Your task to perform on an android device: check out phone information Image 0: 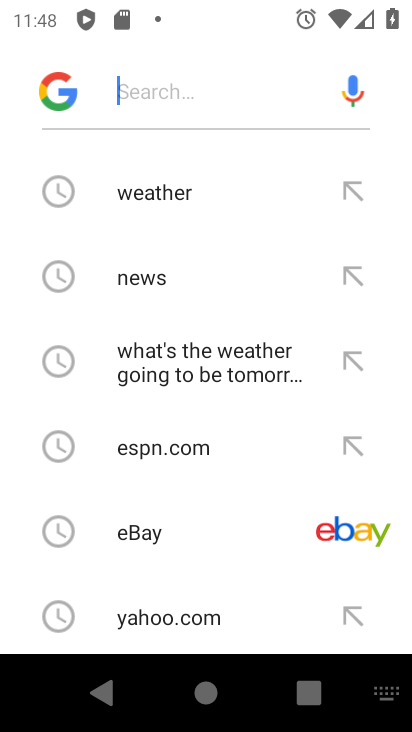
Step 0: press home button
Your task to perform on an android device: check out phone information Image 1: 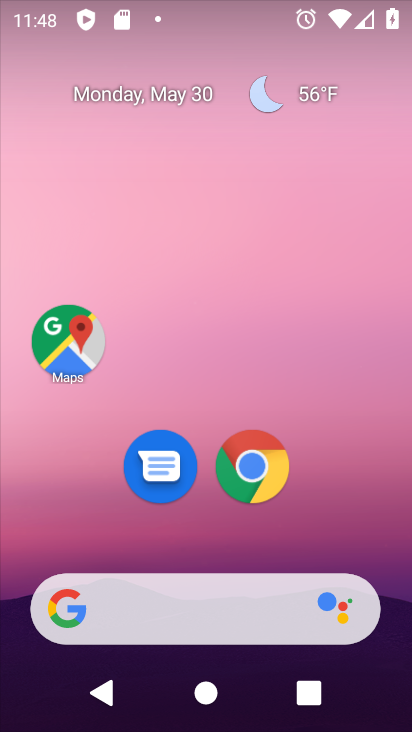
Step 1: drag from (221, 585) to (183, 217)
Your task to perform on an android device: check out phone information Image 2: 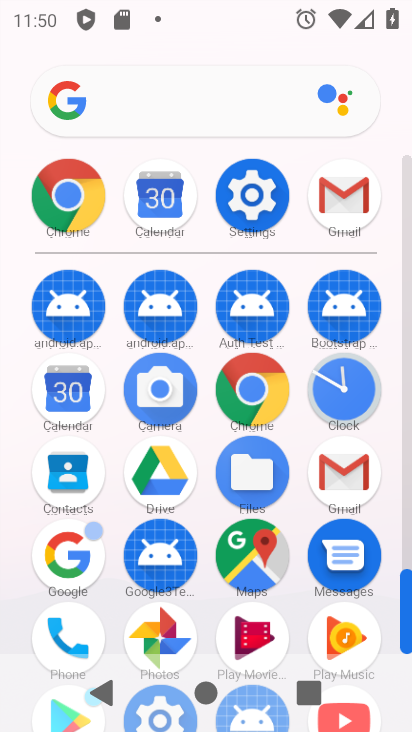
Step 2: click (258, 207)
Your task to perform on an android device: check out phone information Image 3: 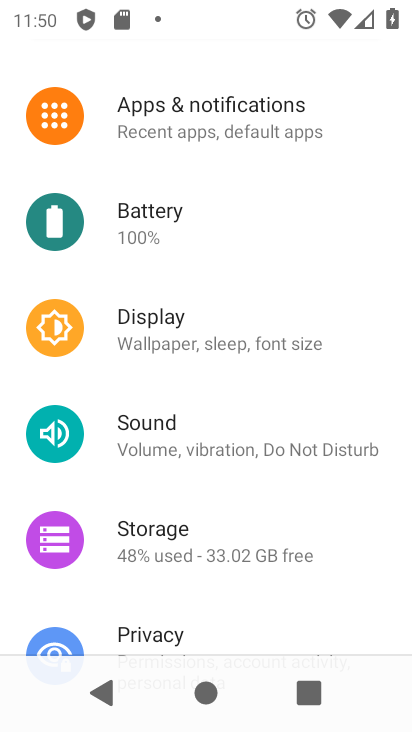
Step 3: drag from (174, 581) to (22, 591)
Your task to perform on an android device: check out phone information Image 4: 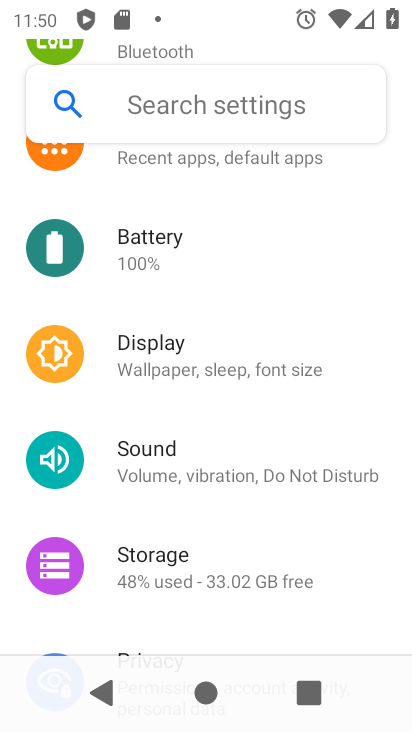
Step 4: drag from (120, 615) to (123, 42)
Your task to perform on an android device: check out phone information Image 5: 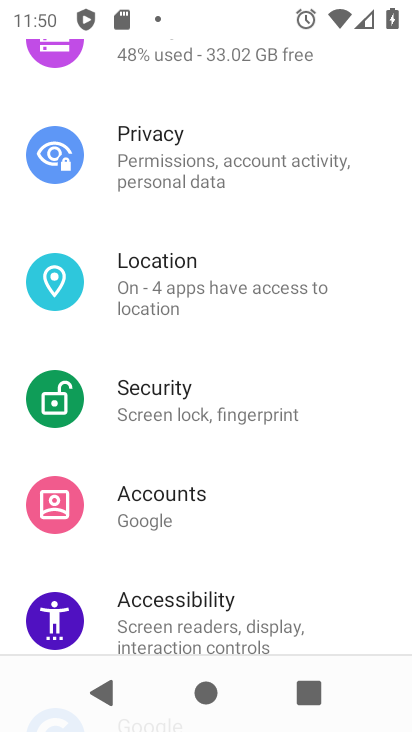
Step 5: drag from (148, 568) to (11, 241)
Your task to perform on an android device: check out phone information Image 6: 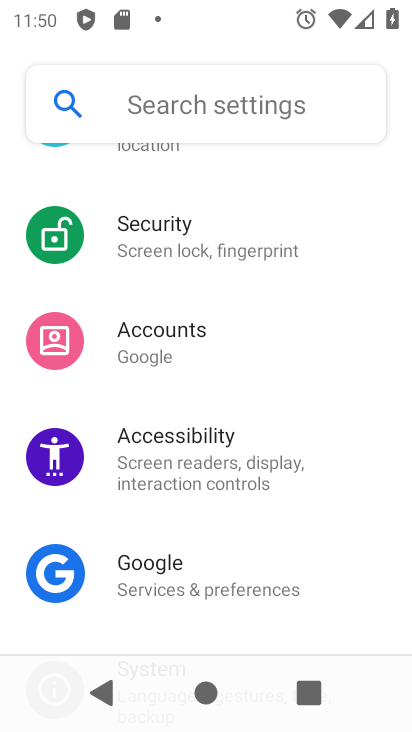
Step 6: drag from (169, 566) to (106, 2)
Your task to perform on an android device: check out phone information Image 7: 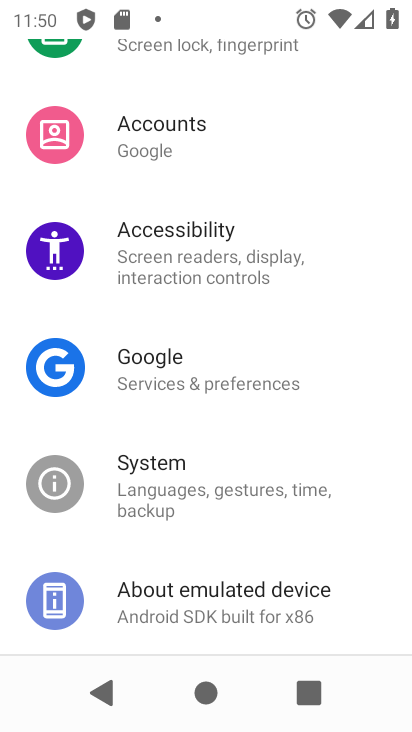
Step 7: click (180, 620)
Your task to perform on an android device: check out phone information Image 8: 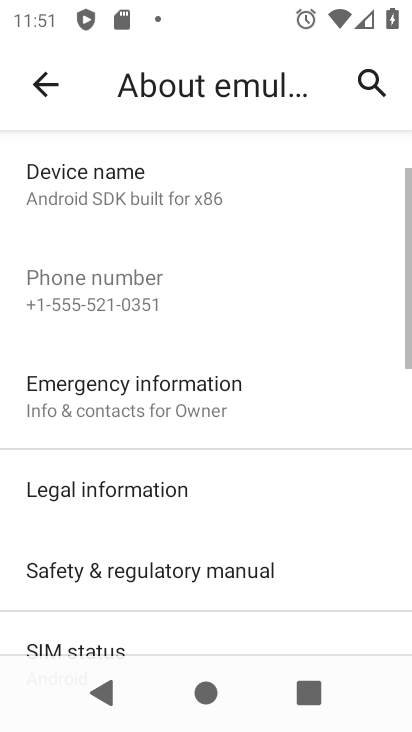
Step 8: task complete